Your task to perform on an android device: Open Chrome and go to settings Image 0: 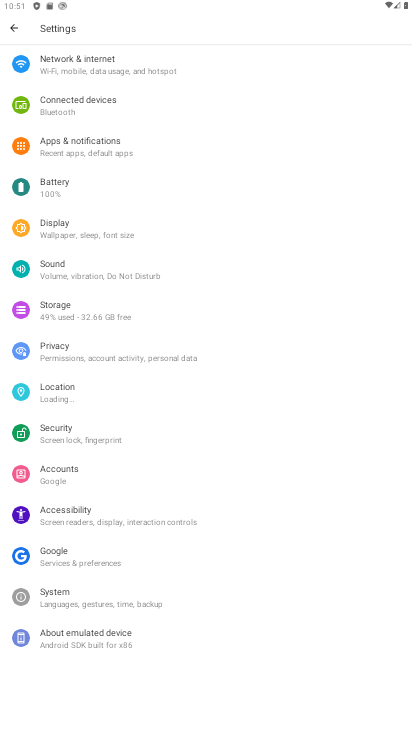
Step 0: drag from (223, 685) to (223, 364)
Your task to perform on an android device: Open Chrome and go to settings Image 1: 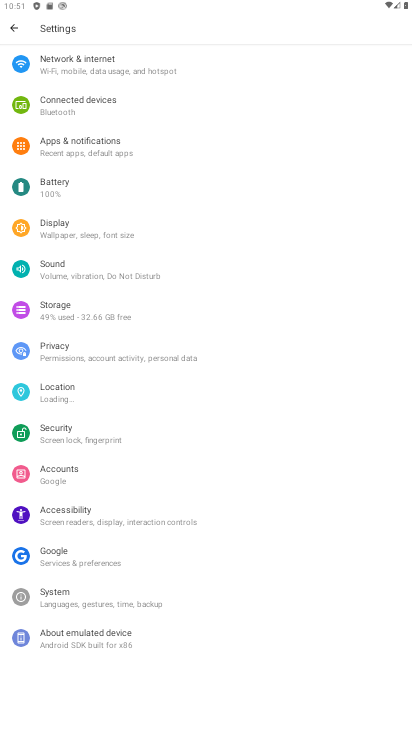
Step 1: press home button
Your task to perform on an android device: Open Chrome and go to settings Image 2: 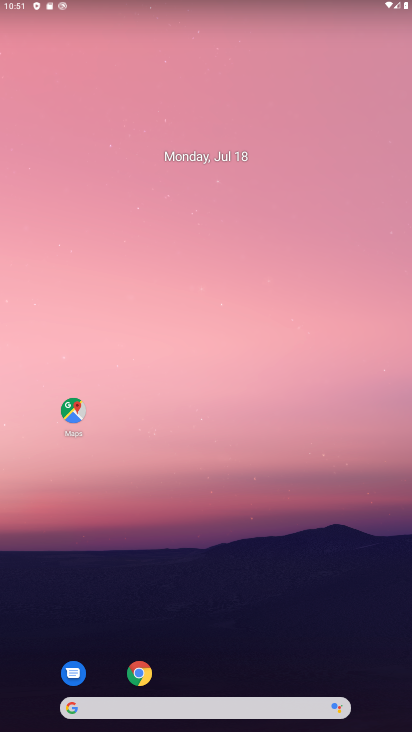
Step 2: click (138, 671)
Your task to perform on an android device: Open Chrome and go to settings Image 3: 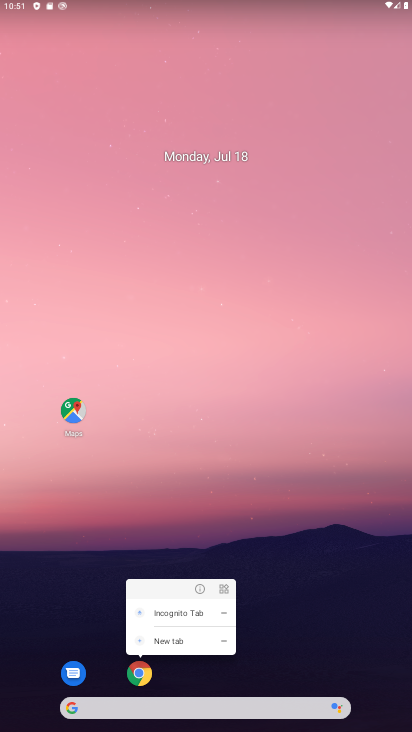
Step 3: click (138, 668)
Your task to perform on an android device: Open Chrome and go to settings Image 4: 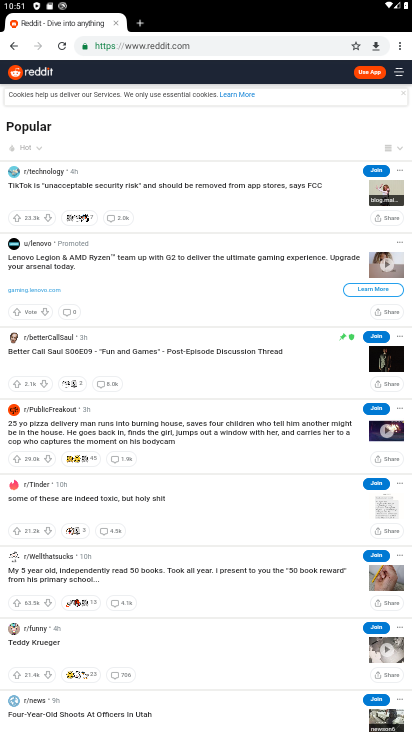
Step 4: click (399, 41)
Your task to perform on an android device: Open Chrome and go to settings Image 5: 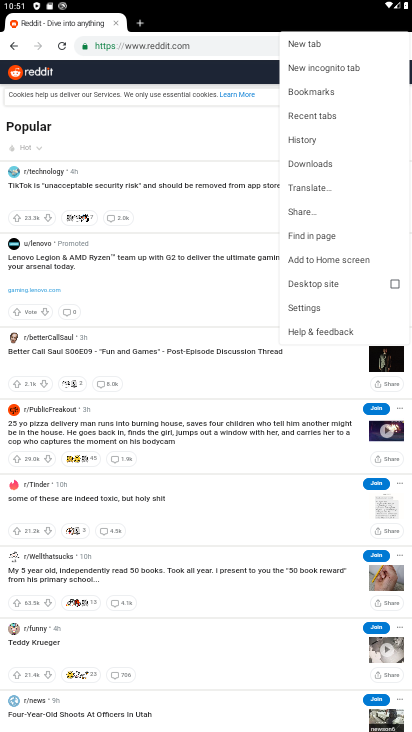
Step 5: click (324, 306)
Your task to perform on an android device: Open Chrome and go to settings Image 6: 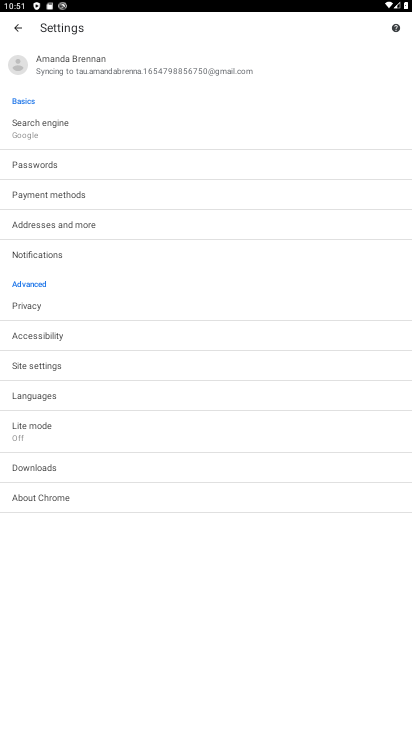
Step 6: task complete